Your task to perform on an android device: choose inbox layout in the gmail app Image 0: 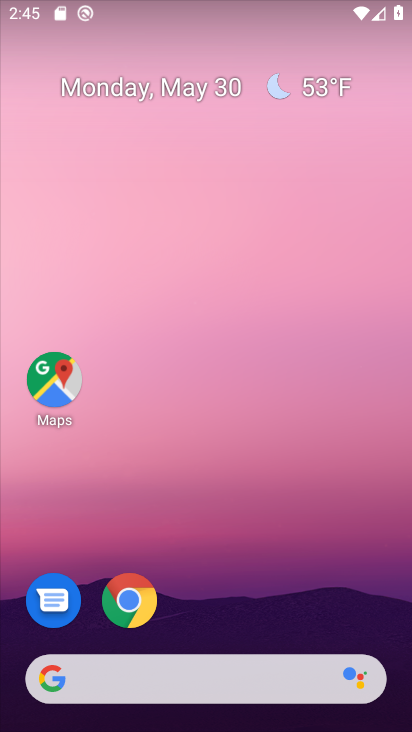
Step 0: drag from (288, 595) to (243, 156)
Your task to perform on an android device: choose inbox layout in the gmail app Image 1: 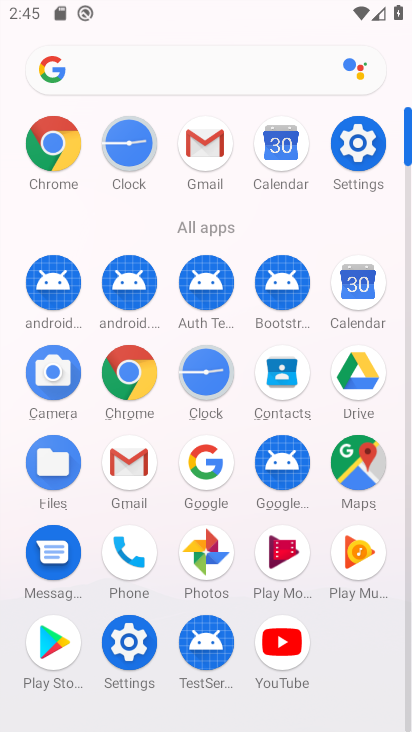
Step 1: click (217, 152)
Your task to perform on an android device: choose inbox layout in the gmail app Image 2: 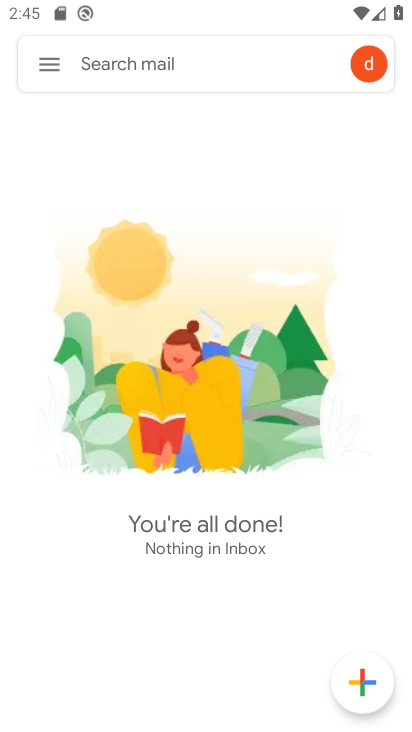
Step 2: click (38, 60)
Your task to perform on an android device: choose inbox layout in the gmail app Image 3: 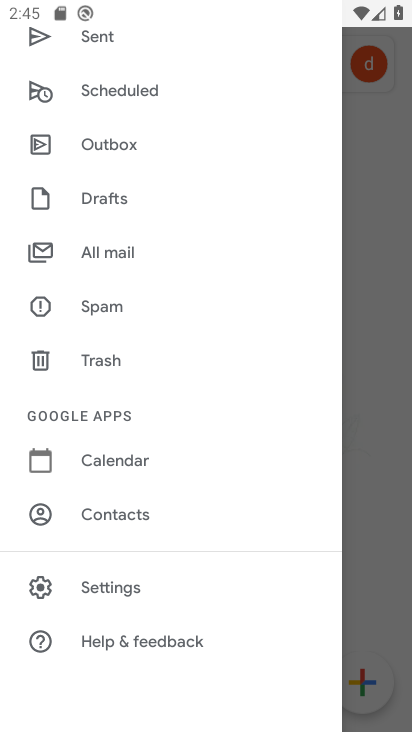
Step 3: click (117, 594)
Your task to perform on an android device: choose inbox layout in the gmail app Image 4: 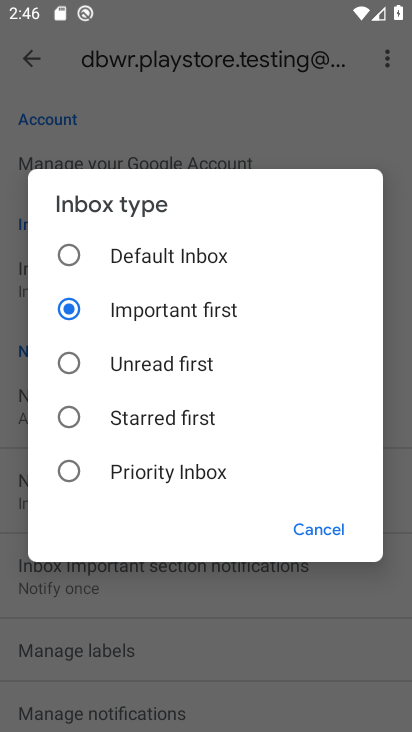
Step 4: click (163, 368)
Your task to perform on an android device: choose inbox layout in the gmail app Image 5: 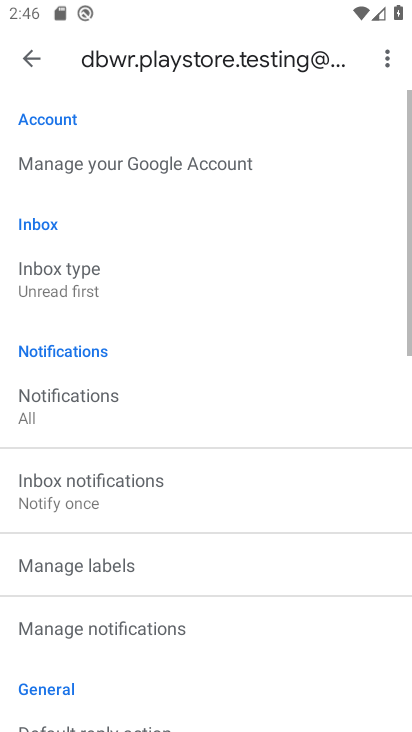
Step 5: task complete